Your task to perform on an android device: Open the map Image 0: 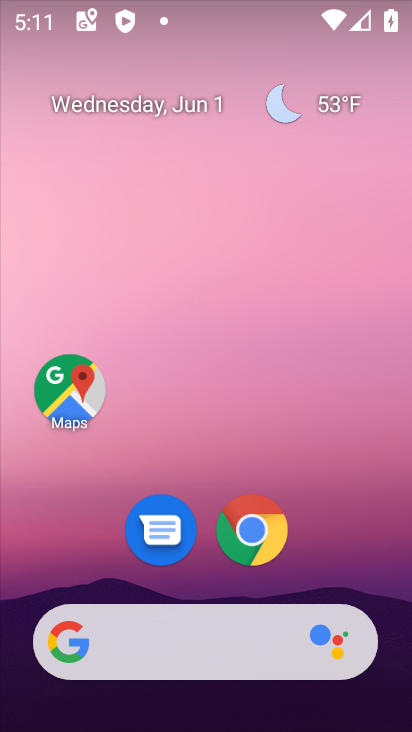
Step 0: click (80, 400)
Your task to perform on an android device: Open the map Image 1: 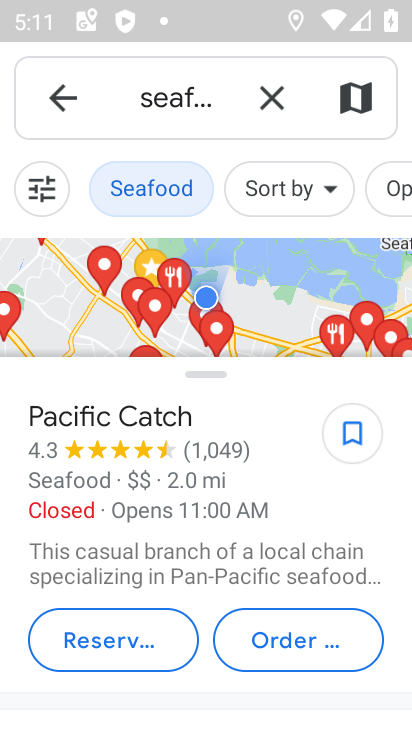
Step 1: task complete